Your task to perform on an android device: open sync settings in chrome Image 0: 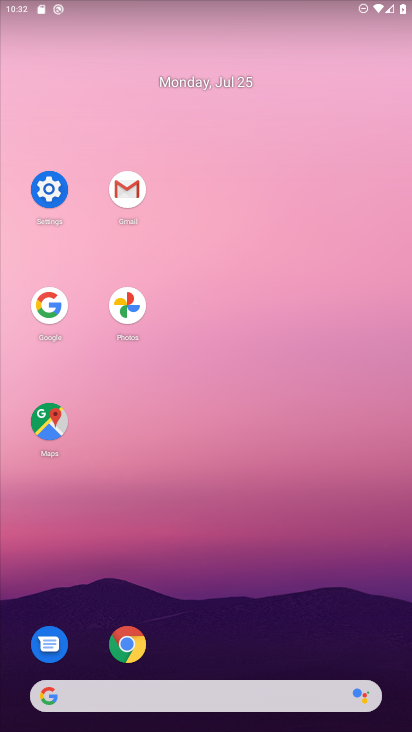
Step 0: click (120, 628)
Your task to perform on an android device: open sync settings in chrome Image 1: 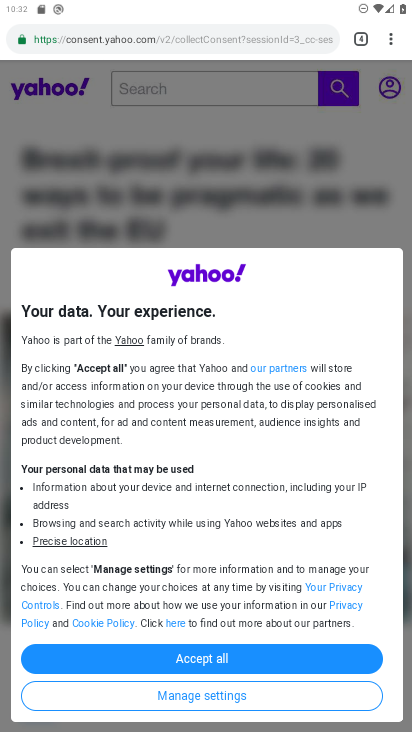
Step 1: click (255, 652)
Your task to perform on an android device: open sync settings in chrome Image 2: 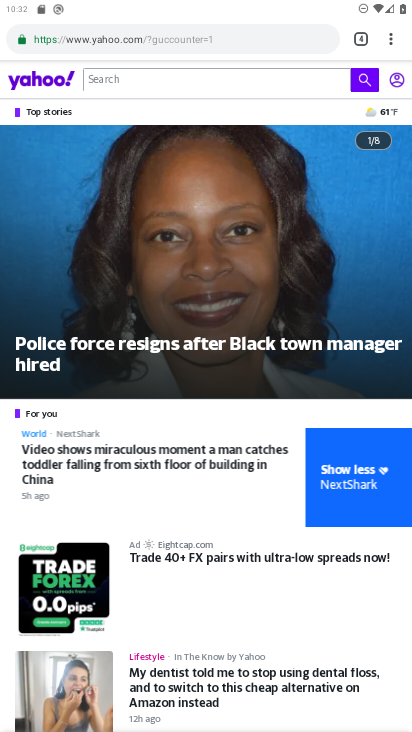
Step 2: click (395, 45)
Your task to perform on an android device: open sync settings in chrome Image 3: 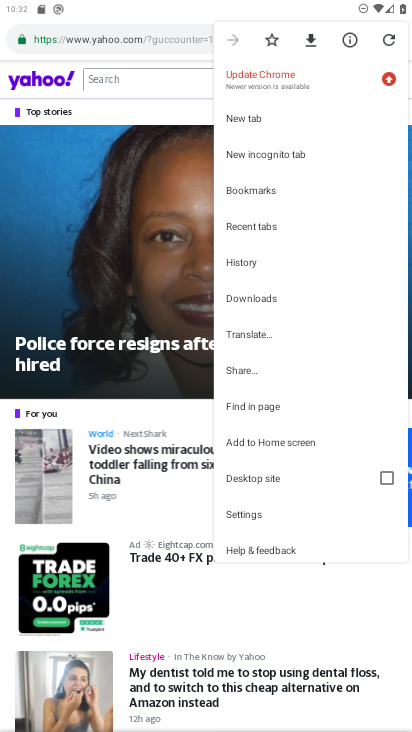
Step 3: click (243, 505)
Your task to perform on an android device: open sync settings in chrome Image 4: 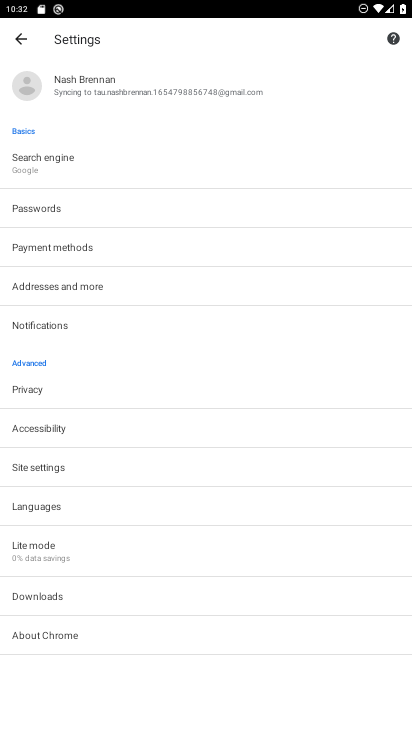
Step 4: click (167, 473)
Your task to perform on an android device: open sync settings in chrome Image 5: 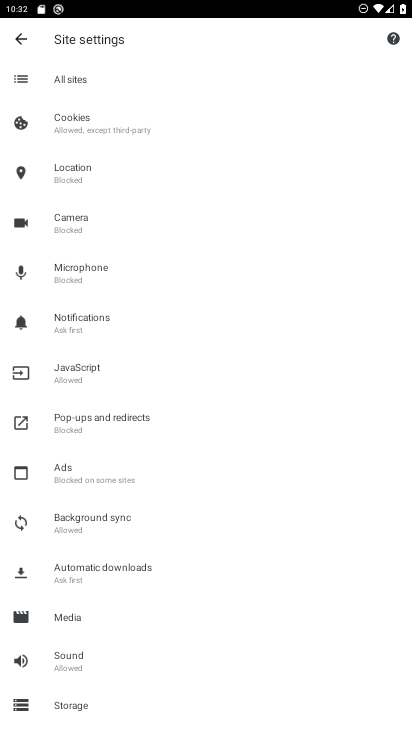
Step 5: click (227, 521)
Your task to perform on an android device: open sync settings in chrome Image 6: 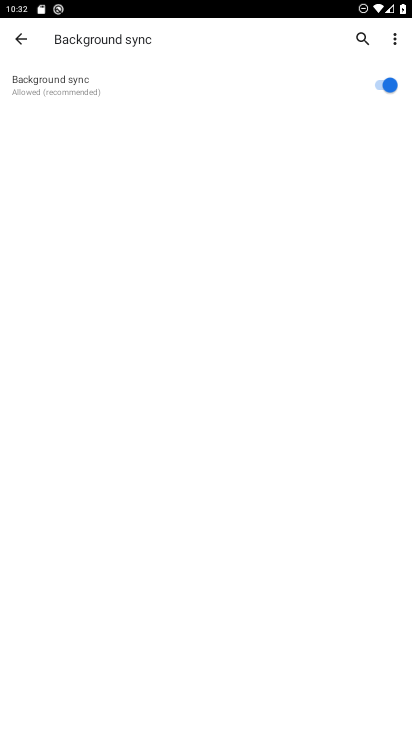
Step 6: task complete